Your task to perform on an android device: turn pop-ups on in chrome Image 0: 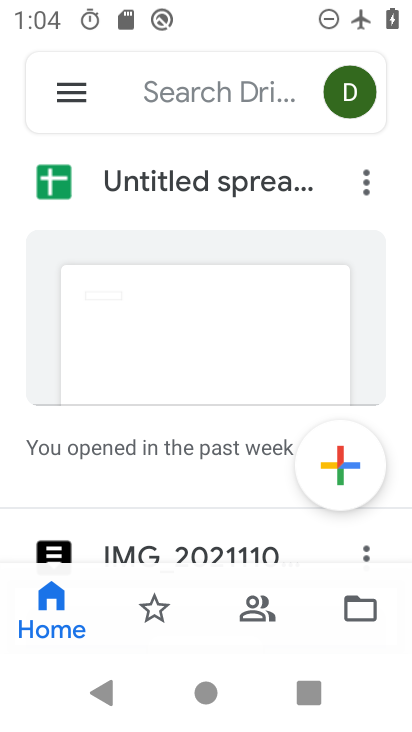
Step 0: press home button
Your task to perform on an android device: turn pop-ups on in chrome Image 1: 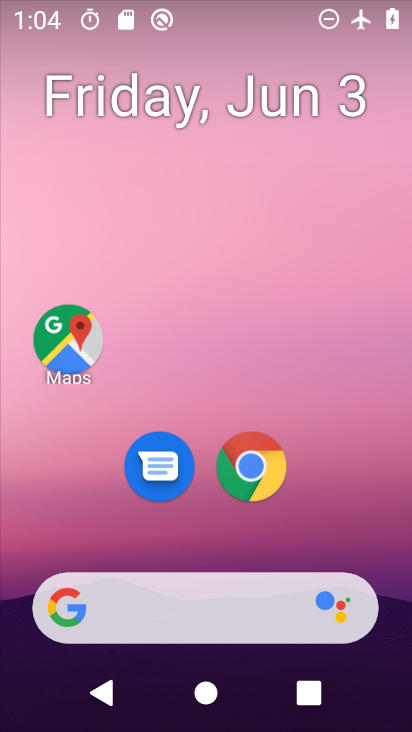
Step 1: click (263, 486)
Your task to perform on an android device: turn pop-ups on in chrome Image 2: 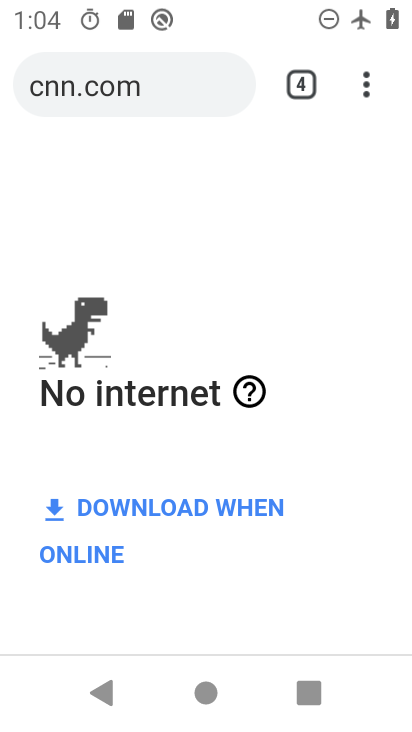
Step 2: drag from (367, 83) to (95, 538)
Your task to perform on an android device: turn pop-ups on in chrome Image 3: 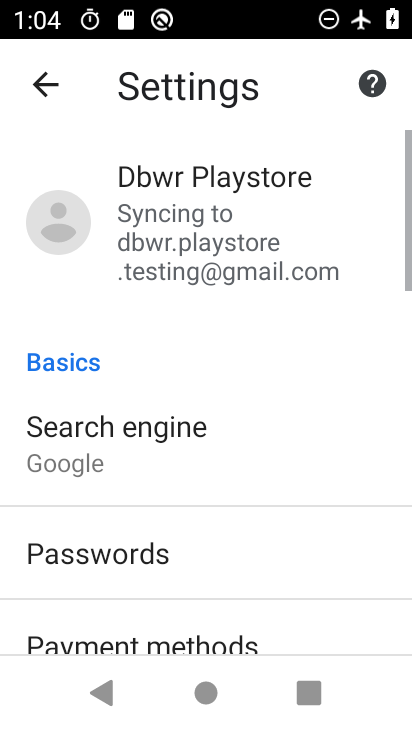
Step 3: drag from (231, 565) to (234, 170)
Your task to perform on an android device: turn pop-ups on in chrome Image 4: 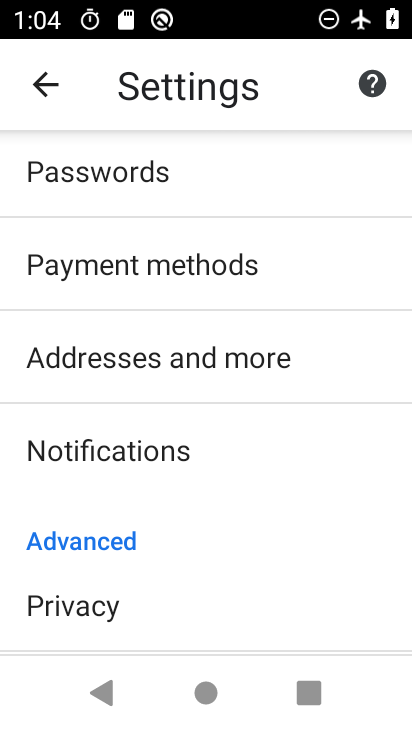
Step 4: drag from (203, 529) to (242, 193)
Your task to perform on an android device: turn pop-ups on in chrome Image 5: 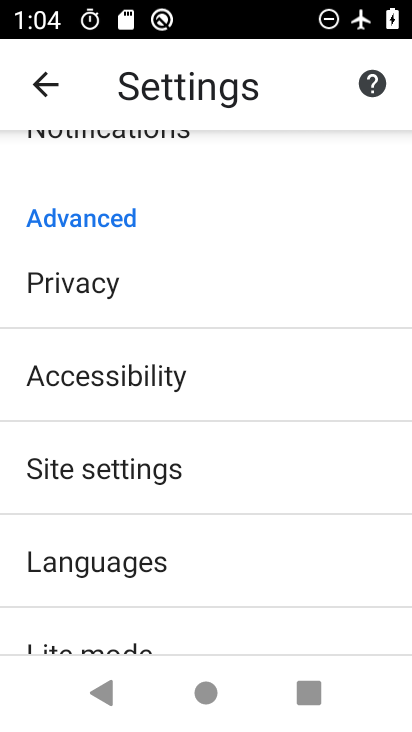
Step 5: click (160, 462)
Your task to perform on an android device: turn pop-ups on in chrome Image 6: 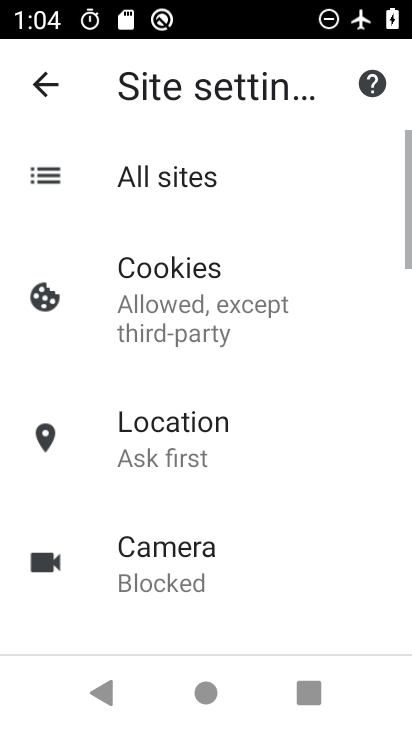
Step 6: drag from (221, 591) to (230, 220)
Your task to perform on an android device: turn pop-ups on in chrome Image 7: 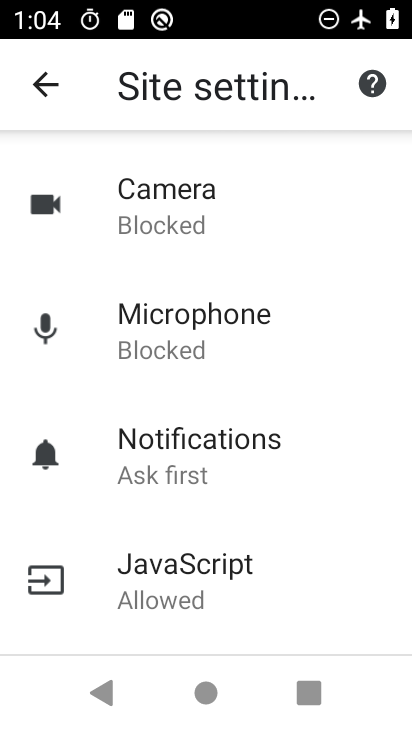
Step 7: drag from (253, 602) to (286, 286)
Your task to perform on an android device: turn pop-ups on in chrome Image 8: 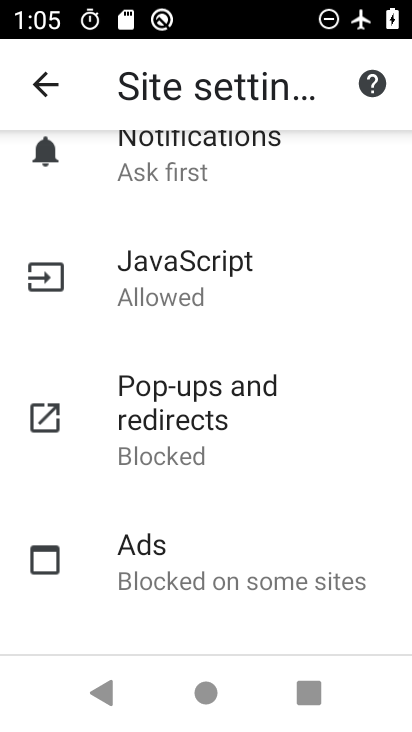
Step 8: click (176, 444)
Your task to perform on an android device: turn pop-ups on in chrome Image 9: 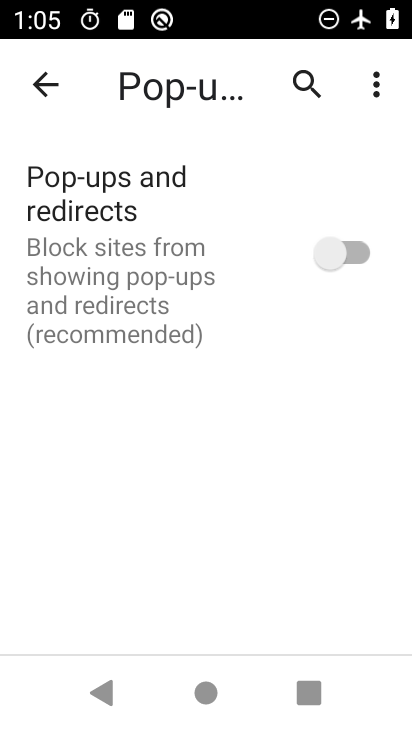
Step 9: click (360, 247)
Your task to perform on an android device: turn pop-ups on in chrome Image 10: 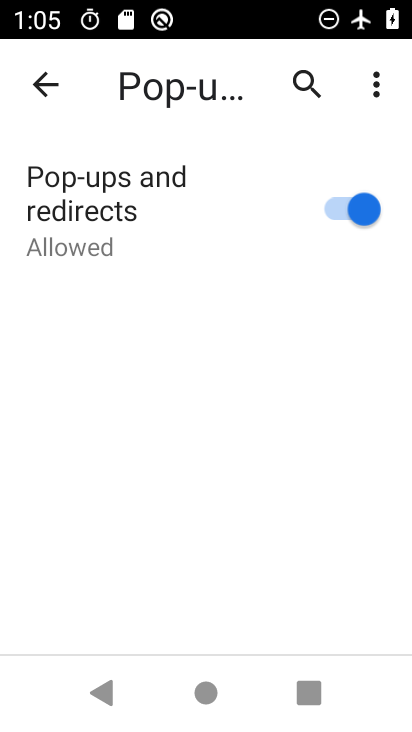
Step 10: task complete